Your task to perform on an android device: Open Chrome and go to settings Image 0: 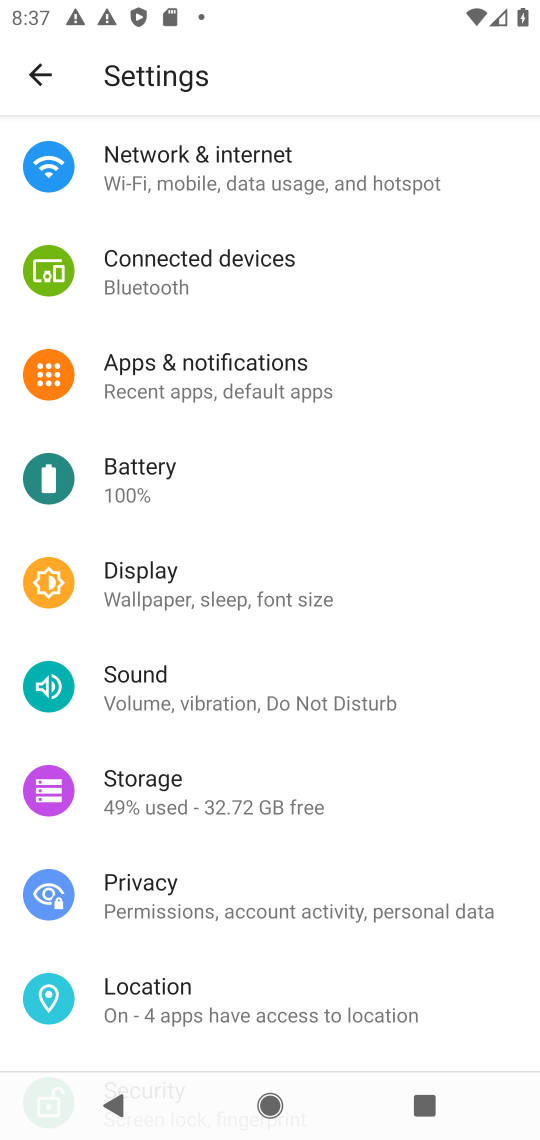
Step 0: press home button
Your task to perform on an android device: Open Chrome and go to settings Image 1: 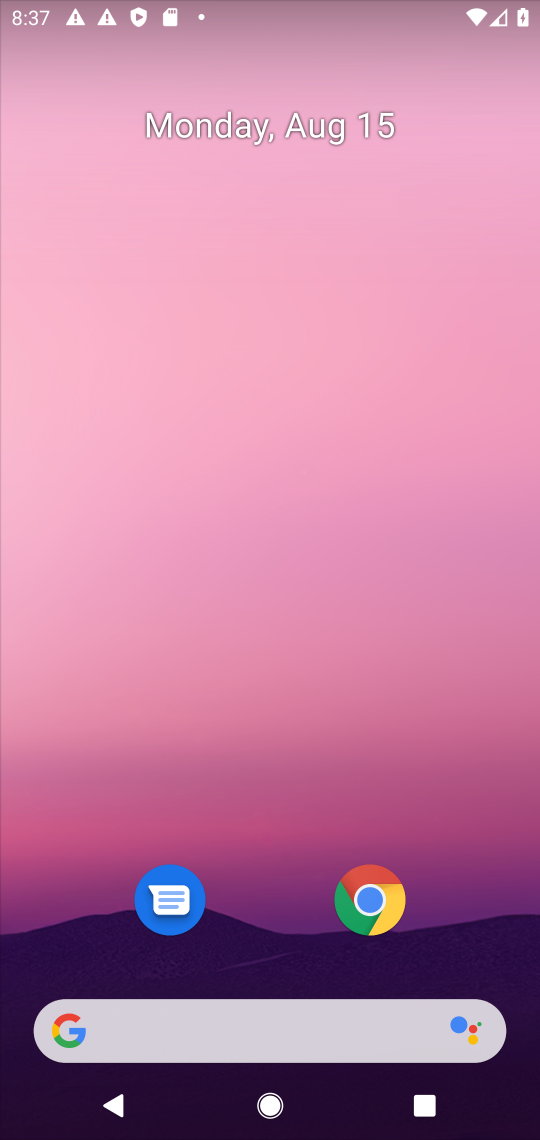
Step 1: click (379, 927)
Your task to perform on an android device: Open Chrome and go to settings Image 2: 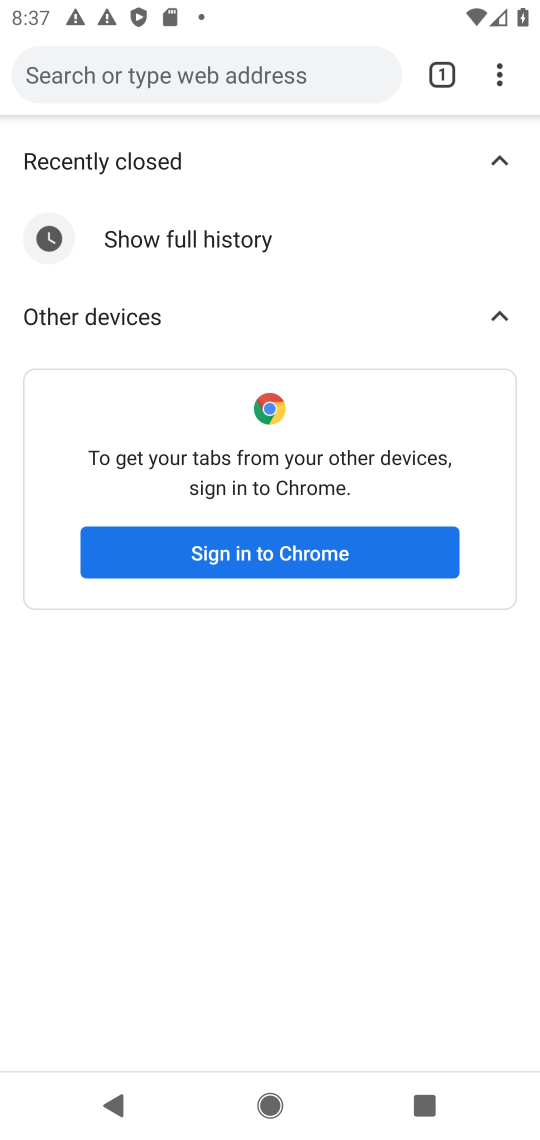
Step 2: click (504, 77)
Your task to perform on an android device: Open Chrome and go to settings Image 3: 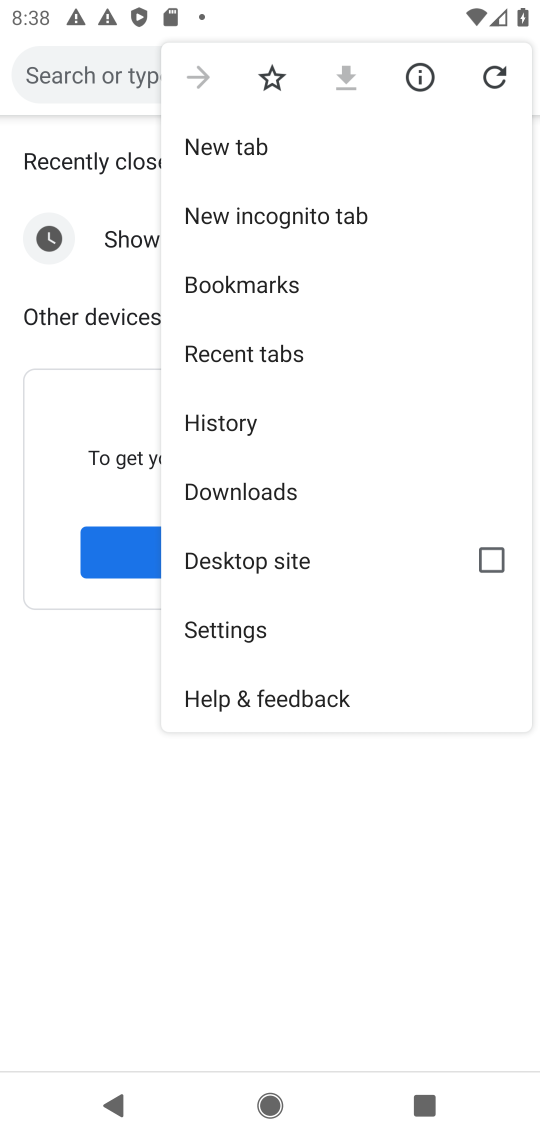
Step 3: click (235, 623)
Your task to perform on an android device: Open Chrome and go to settings Image 4: 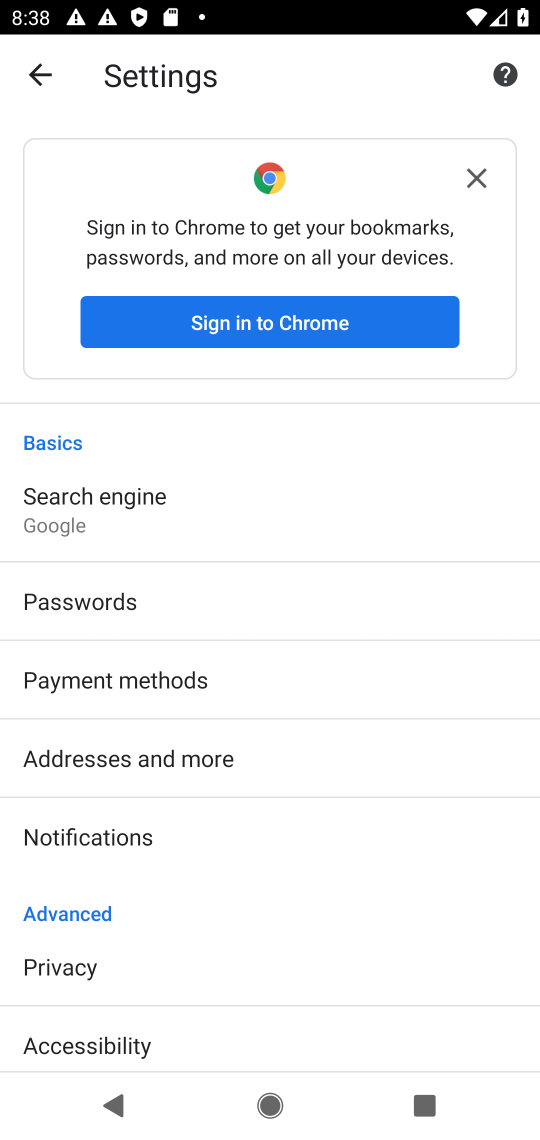
Step 4: task complete